Your task to perform on an android device: turn off wifi Image 0: 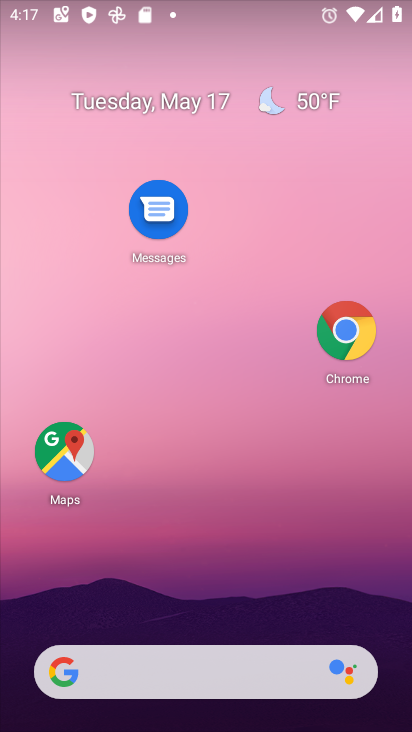
Step 0: drag from (236, 578) to (120, 0)
Your task to perform on an android device: turn off wifi Image 1: 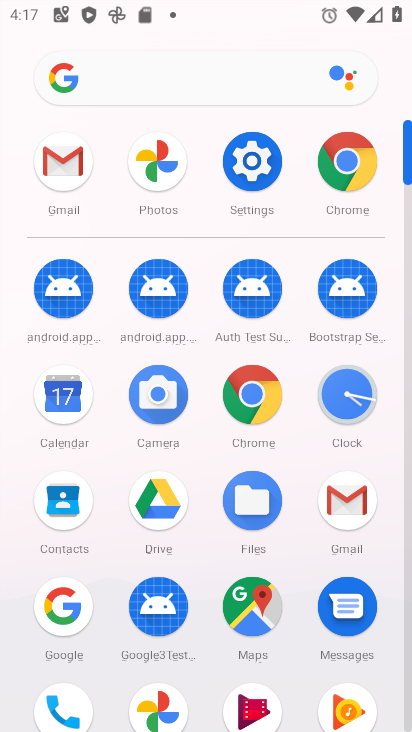
Step 1: click (243, 173)
Your task to perform on an android device: turn off wifi Image 2: 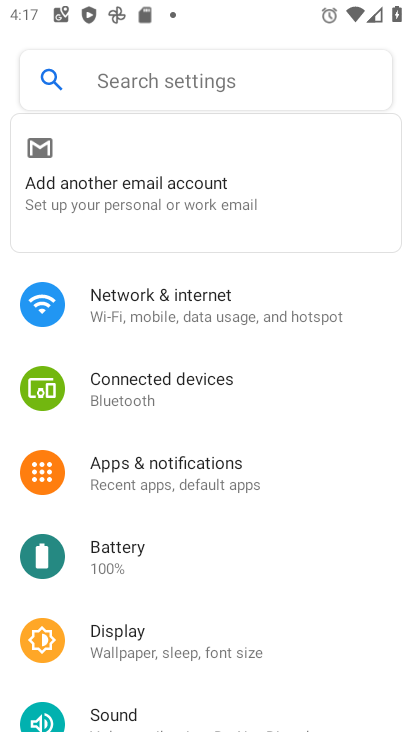
Step 2: click (238, 264)
Your task to perform on an android device: turn off wifi Image 3: 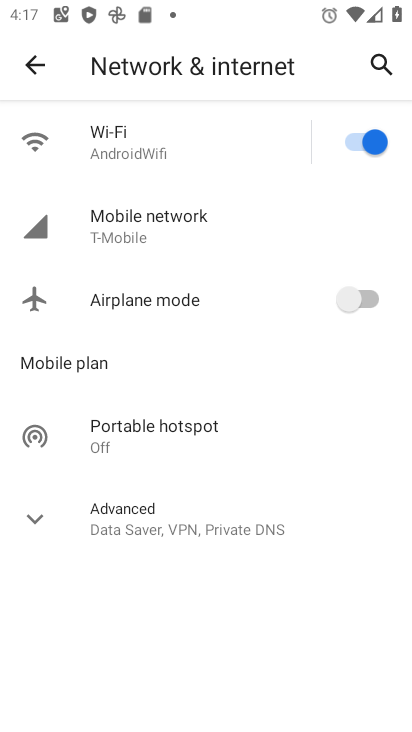
Step 3: click (368, 137)
Your task to perform on an android device: turn off wifi Image 4: 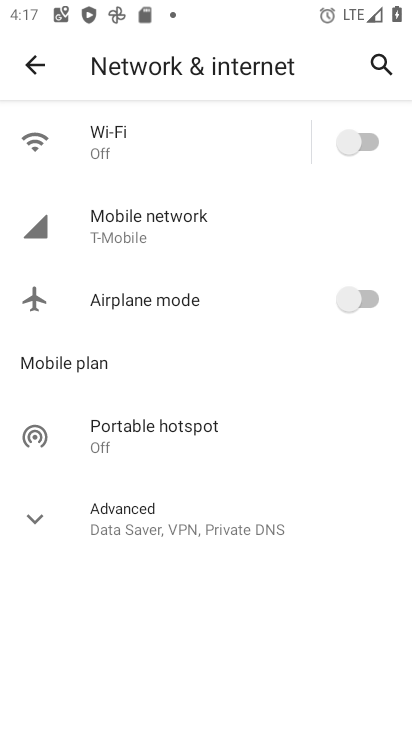
Step 4: task complete